Your task to perform on an android device: search for starred emails in the gmail app Image 0: 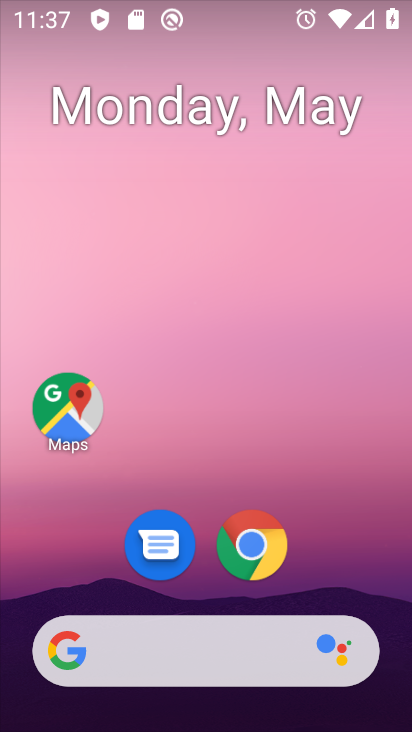
Step 0: drag from (195, 626) to (213, 245)
Your task to perform on an android device: search for starred emails in the gmail app Image 1: 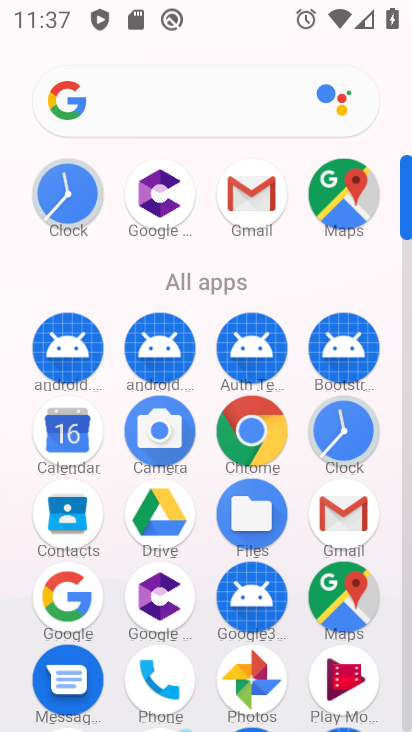
Step 1: click (253, 211)
Your task to perform on an android device: search for starred emails in the gmail app Image 2: 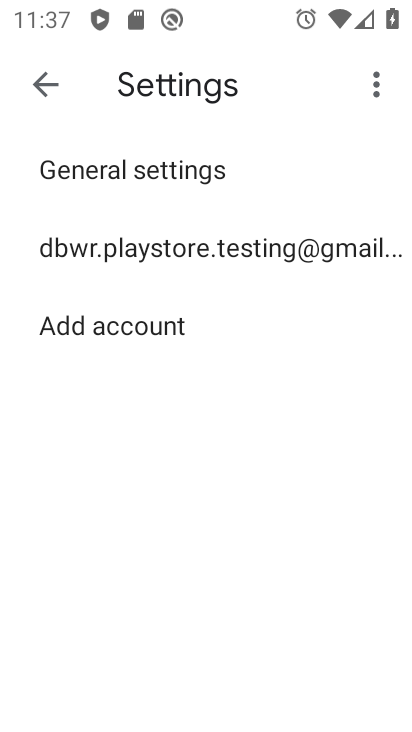
Step 2: click (40, 71)
Your task to perform on an android device: search for starred emails in the gmail app Image 3: 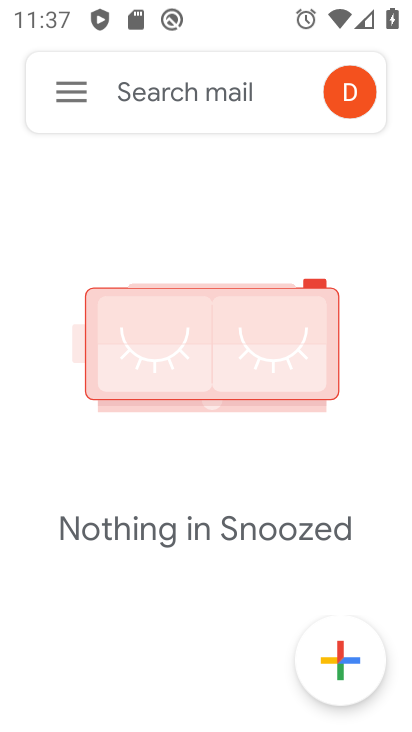
Step 3: click (65, 83)
Your task to perform on an android device: search for starred emails in the gmail app Image 4: 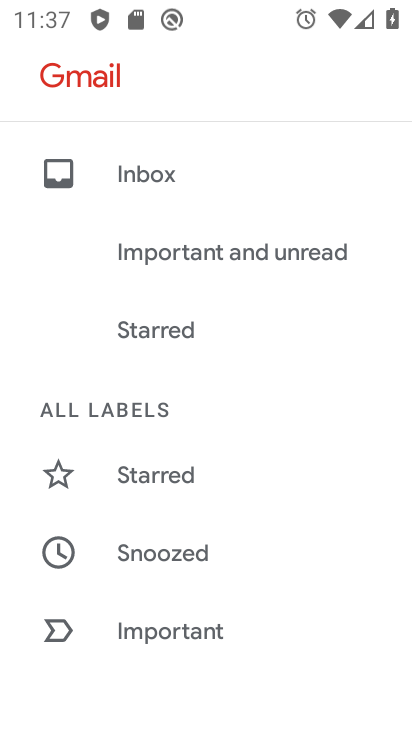
Step 4: click (169, 334)
Your task to perform on an android device: search for starred emails in the gmail app Image 5: 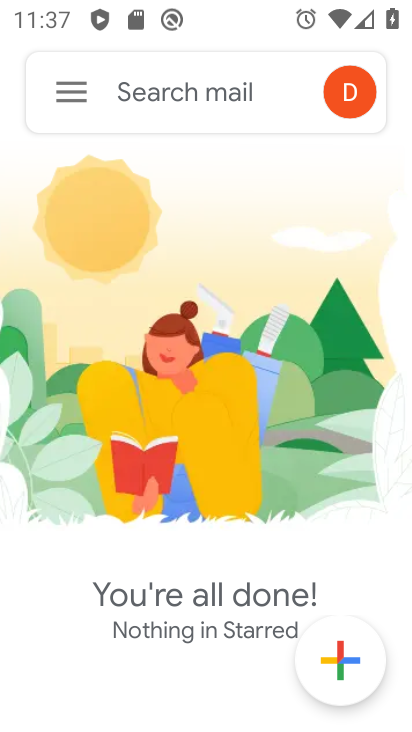
Step 5: task complete